Your task to perform on an android device: Open Google Chrome Image 0: 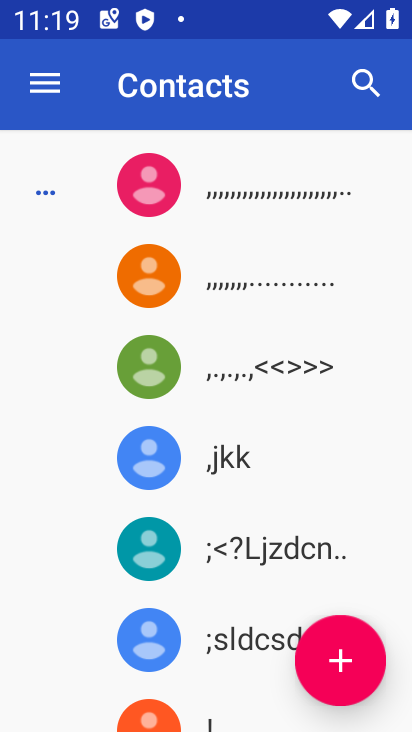
Step 0: press home button
Your task to perform on an android device: Open Google Chrome Image 1: 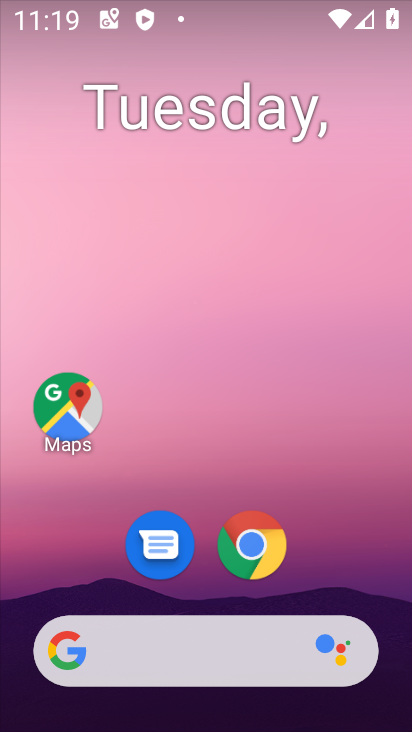
Step 1: click (265, 538)
Your task to perform on an android device: Open Google Chrome Image 2: 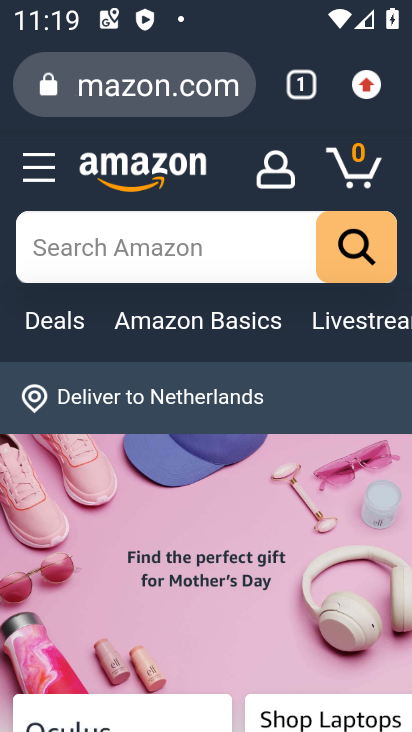
Step 2: task complete